Your task to perform on an android device: toggle wifi Image 0: 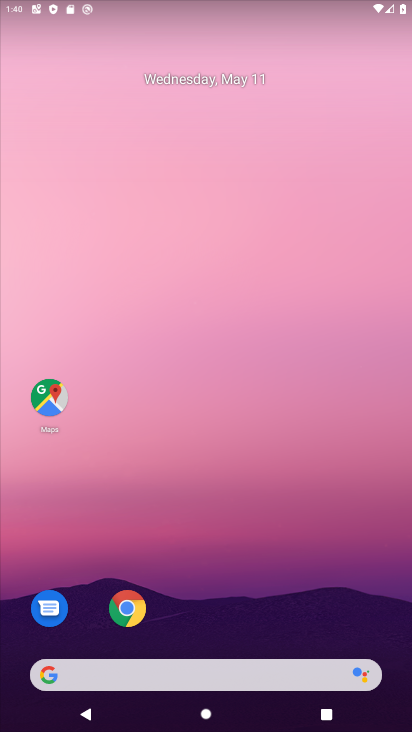
Step 0: drag from (248, 542) to (248, 343)
Your task to perform on an android device: toggle wifi Image 1: 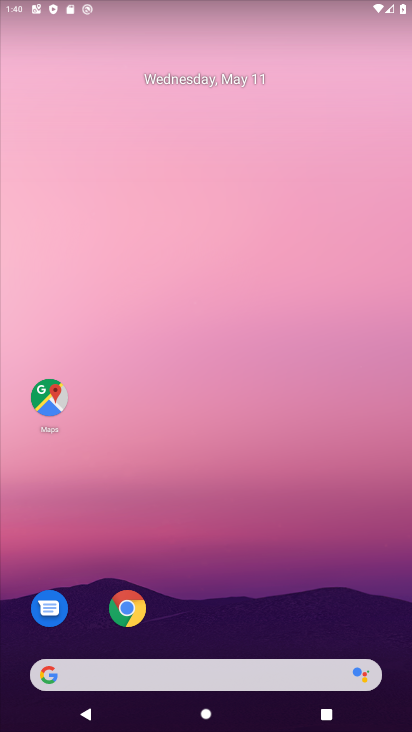
Step 1: task complete